Your task to perform on an android device: turn on translation in the chrome app Image 0: 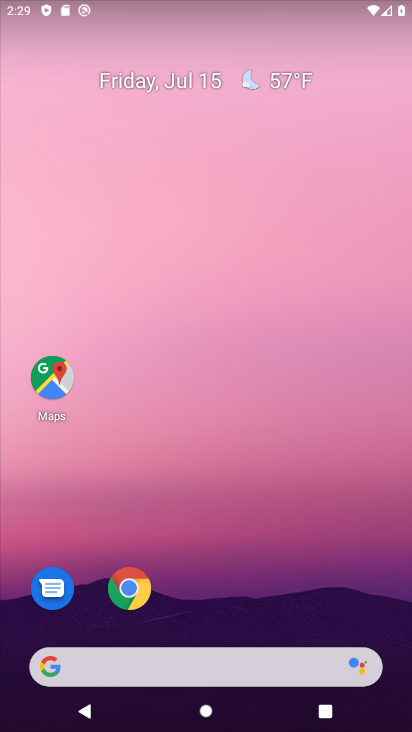
Step 0: click (130, 586)
Your task to perform on an android device: turn on translation in the chrome app Image 1: 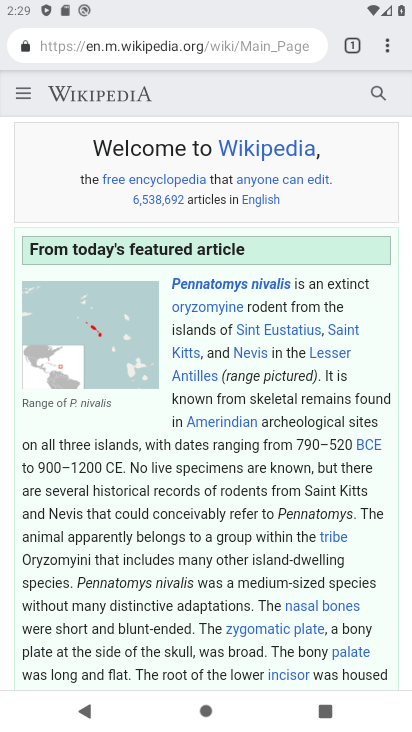
Step 1: click (388, 46)
Your task to perform on an android device: turn on translation in the chrome app Image 2: 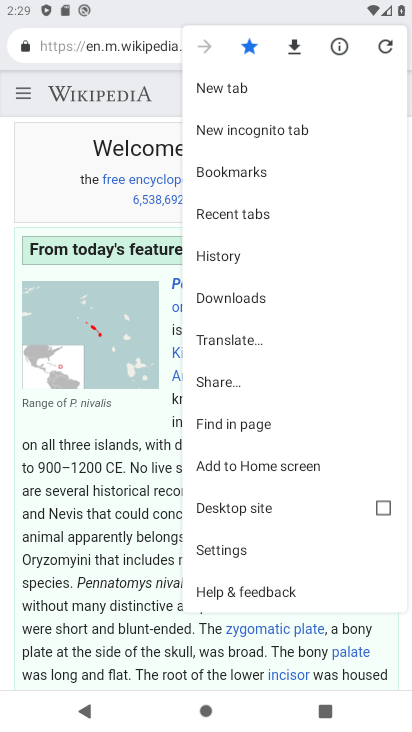
Step 2: click (238, 548)
Your task to perform on an android device: turn on translation in the chrome app Image 3: 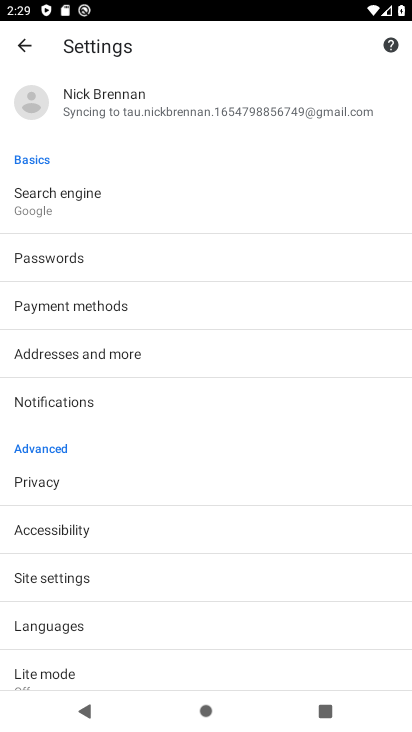
Step 3: click (67, 621)
Your task to perform on an android device: turn on translation in the chrome app Image 4: 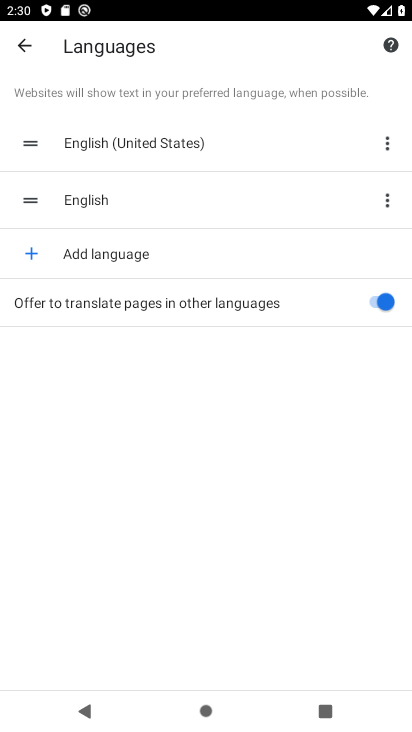
Step 4: task complete